Your task to perform on an android device: turn on bluetooth scan Image 0: 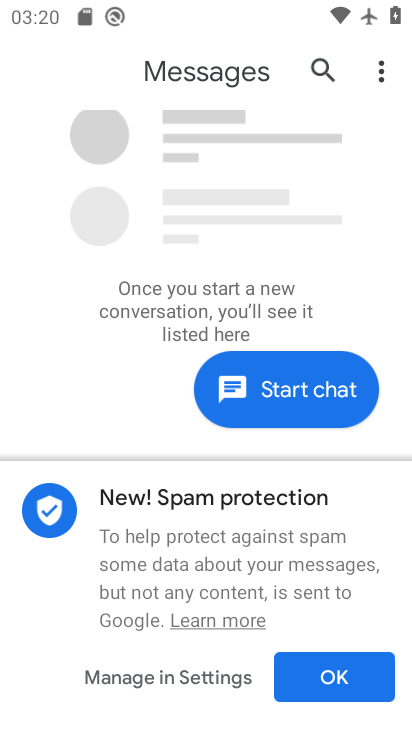
Step 0: press home button
Your task to perform on an android device: turn on bluetooth scan Image 1: 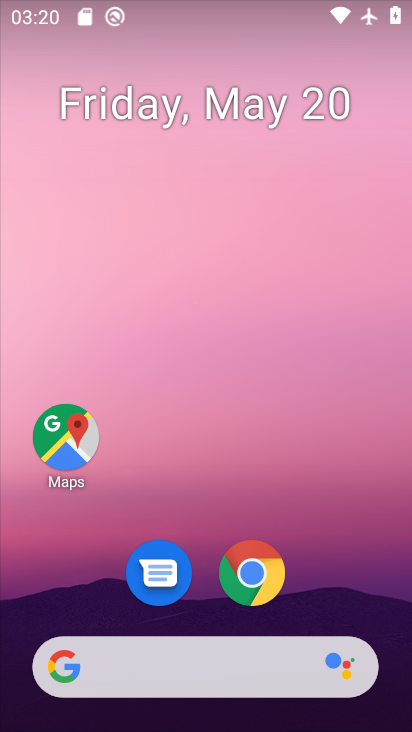
Step 1: drag from (203, 606) to (205, 207)
Your task to perform on an android device: turn on bluetooth scan Image 2: 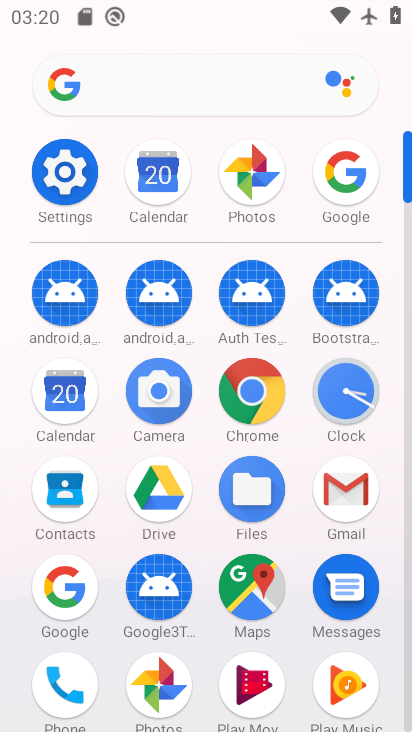
Step 2: click (85, 178)
Your task to perform on an android device: turn on bluetooth scan Image 3: 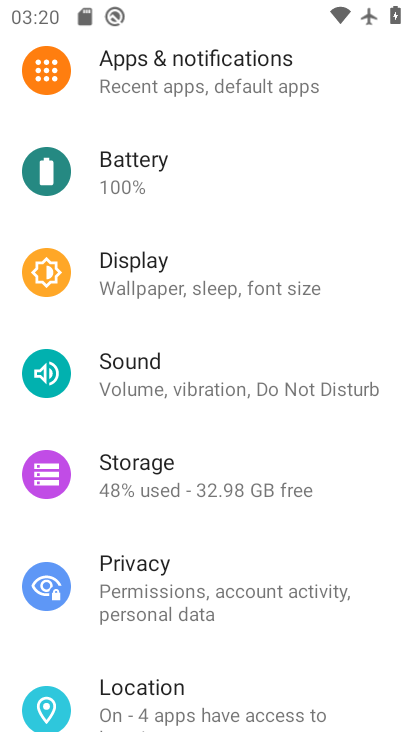
Step 3: click (208, 701)
Your task to perform on an android device: turn on bluetooth scan Image 4: 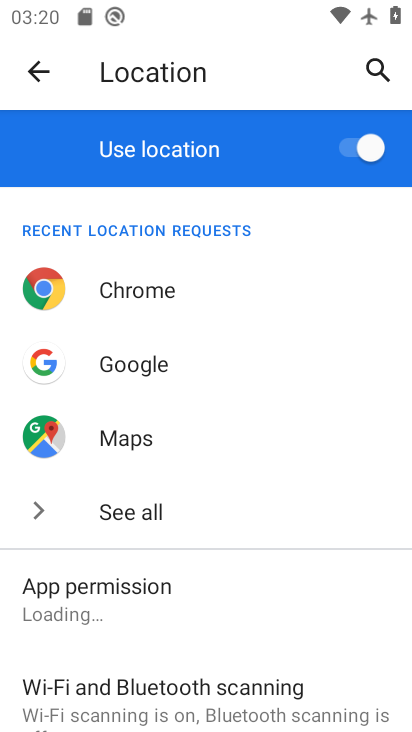
Step 4: drag from (235, 635) to (237, 386)
Your task to perform on an android device: turn on bluetooth scan Image 5: 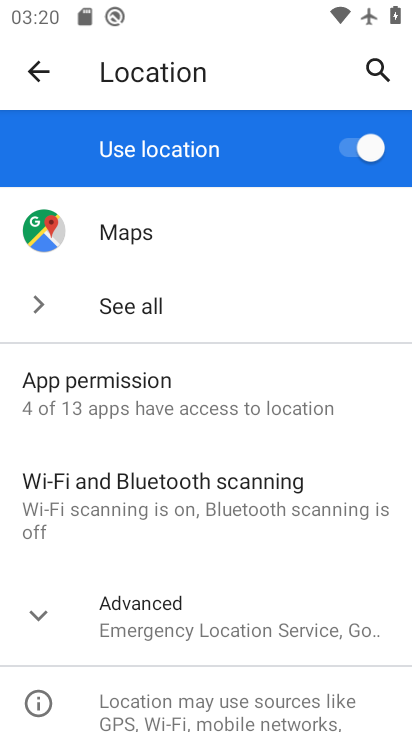
Step 5: click (230, 501)
Your task to perform on an android device: turn on bluetooth scan Image 6: 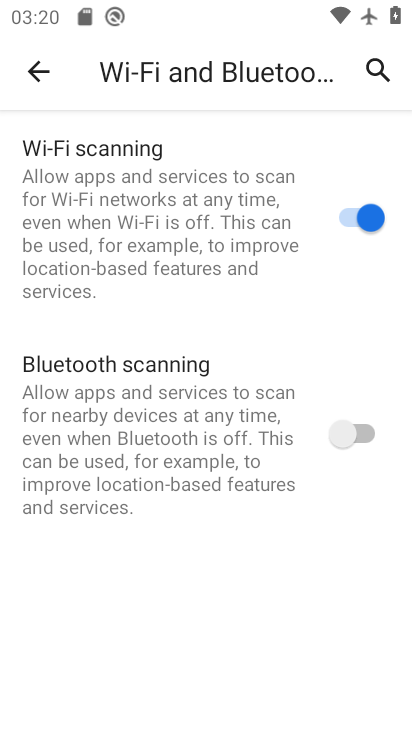
Step 6: click (356, 436)
Your task to perform on an android device: turn on bluetooth scan Image 7: 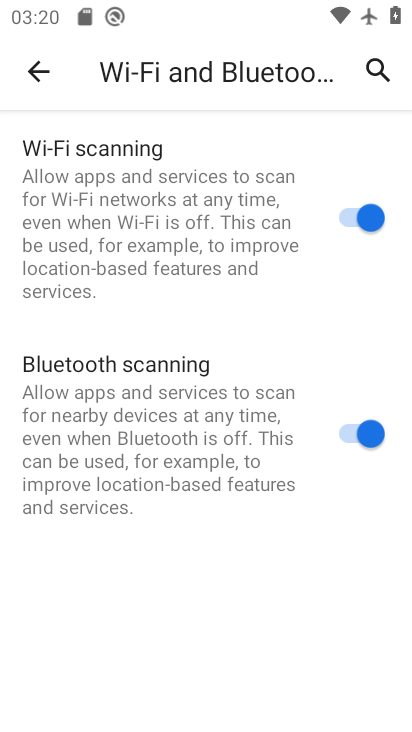
Step 7: task complete